Your task to perform on an android device: When is my next appointment? Image 0: 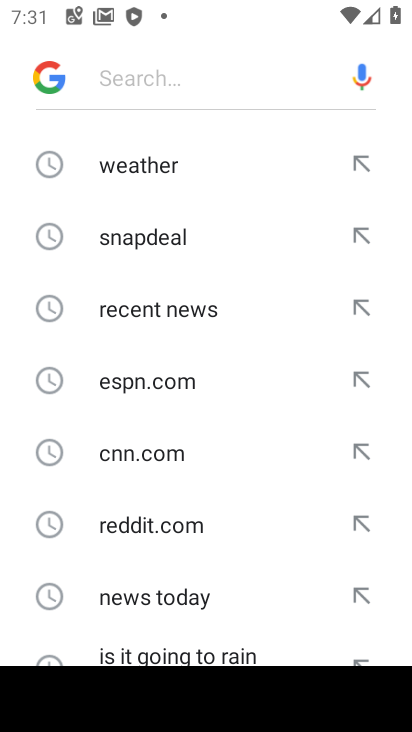
Step 0: press home button
Your task to perform on an android device: When is my next appointment? Image 1: 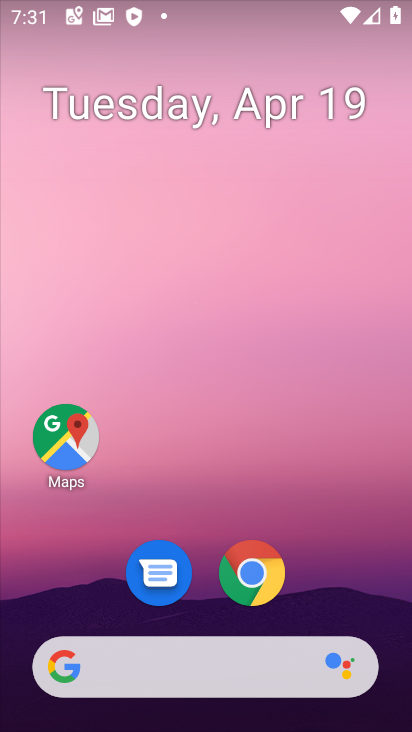
Step 1: drag from (379, 602) to (327, 91)
Your task to perform on an android device: When is my next appointment? Image 2: 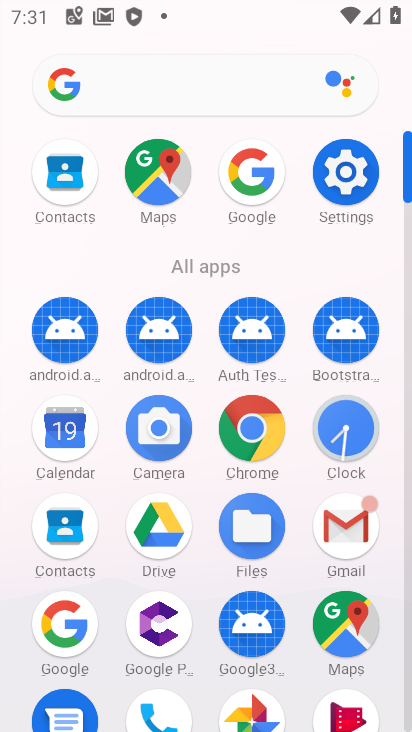
Step 2: click (60, 432)
Your task to perform on an android device: When is my next appointment? Image 3: 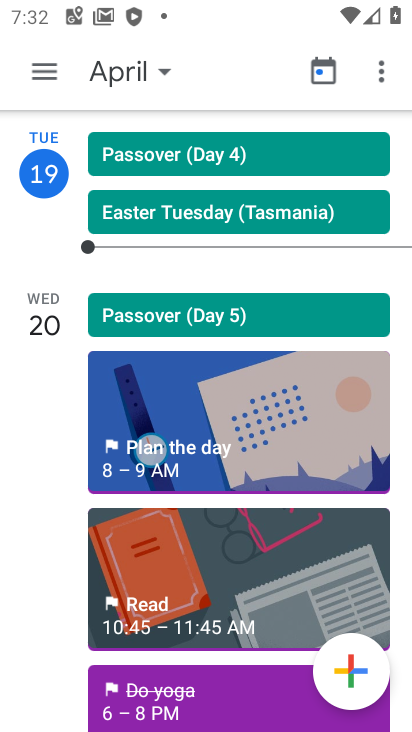
Step 3: click (155, 65)
Your task to perform on an android device: When is my next appointment? Image 4: 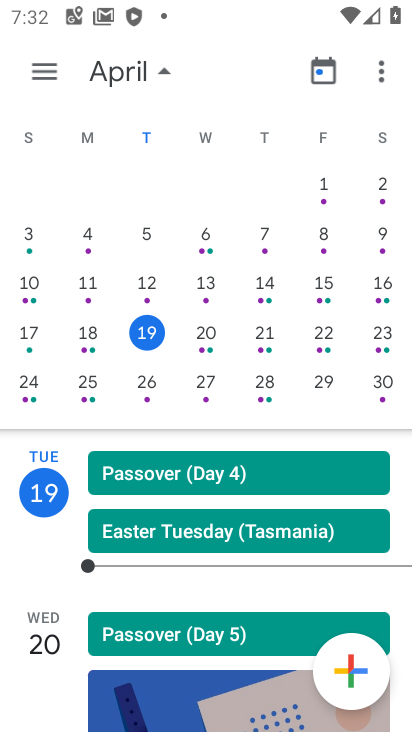
Step 4: click (55, 66)
Your task to perform on an android device: When is my next appointment? Image 5: 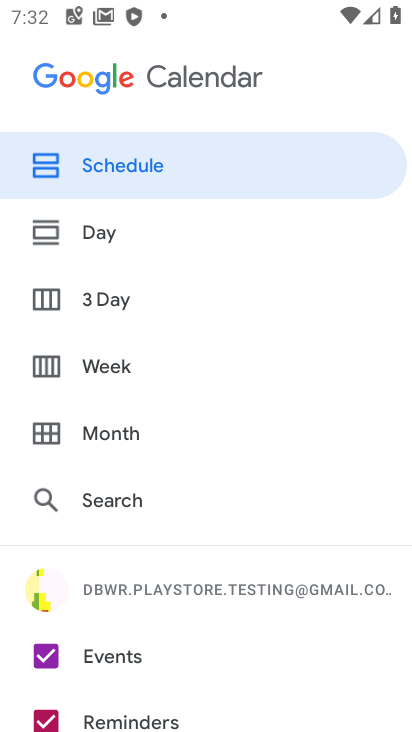
Step 5: drag from (295, 533) to (297, 208)
Your task to perform on an android device: When is my next appointment? Image 6: 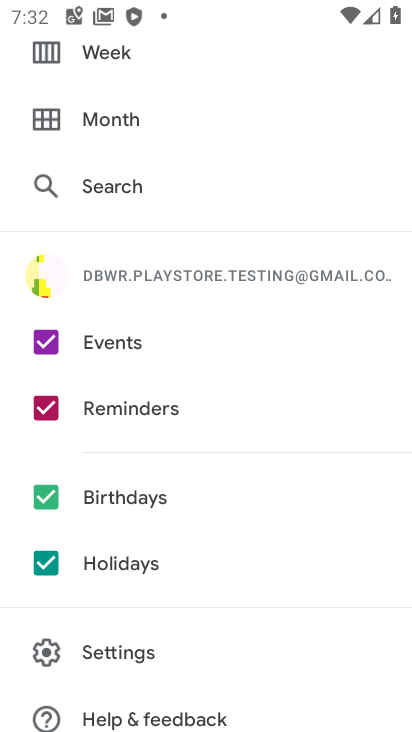
Step 6: drag from (318, 623) to (274, 197)
Your task to perform on an android device: When is my next appointment? Image 7: 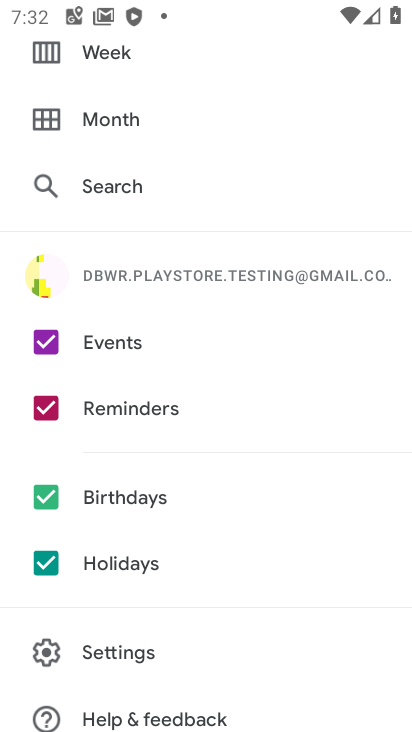
Step 7: click (34, 394)
Your task to perform on an android device: When is my next appointment? Image 8: 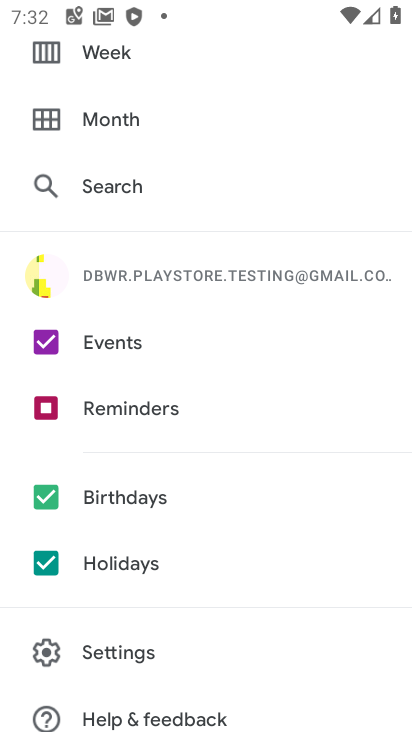
Step 8: click (54, 496)
Your task to perform on an android device: When is my next appointment? Image 9: 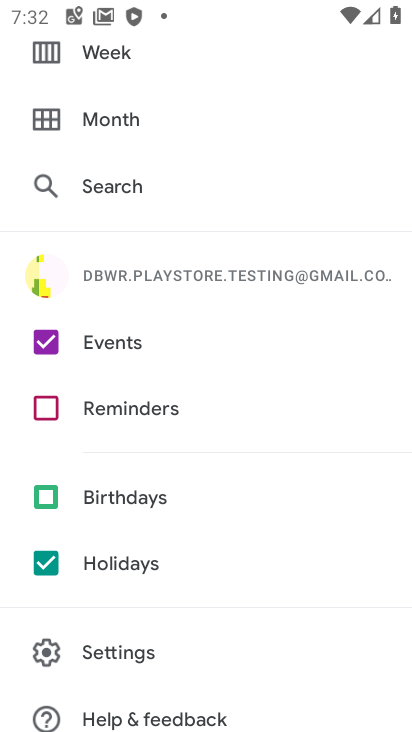
Step 9: click (48, 565)
Your task to perform on an android device: When is my next appointment? Image 10: 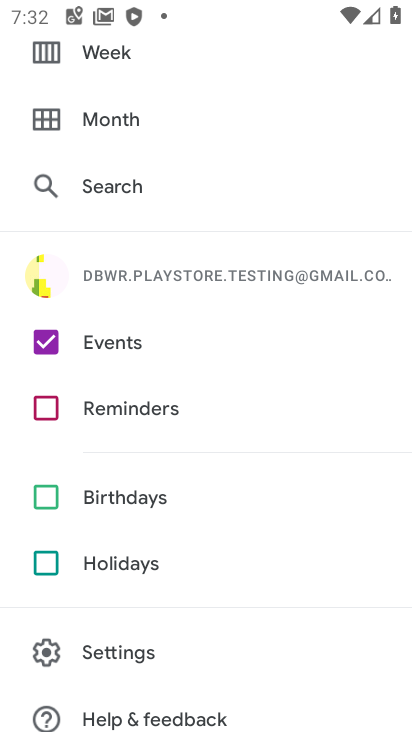
Step 10: drag from (246, 101) to (260, 471)
Your task to perform on an android device: When is my next appointment? Image 11: 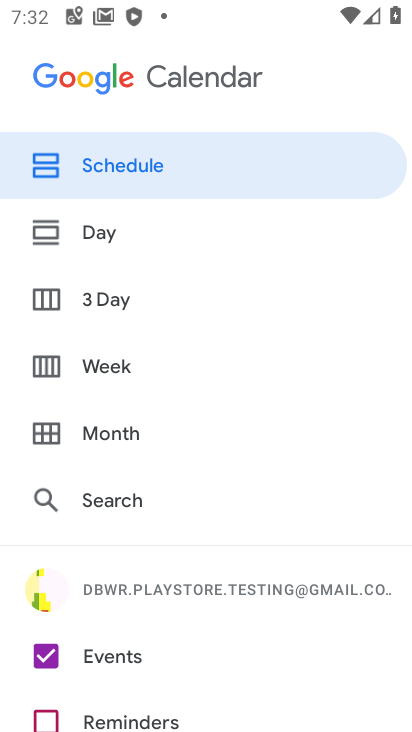
Step 11: click (90, 163)
Your task to perform on an android device: When is my next appointment? Image 12: 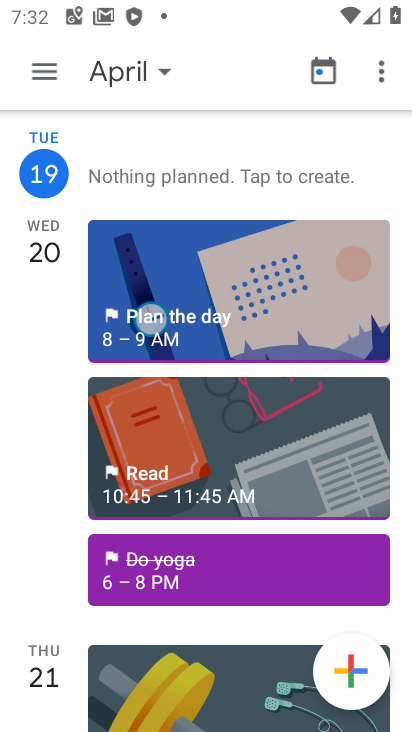
Step 12: drag from (122, 678) to (141, 246)
Your task to perform on an android device: When is my next appointment? Image 13: 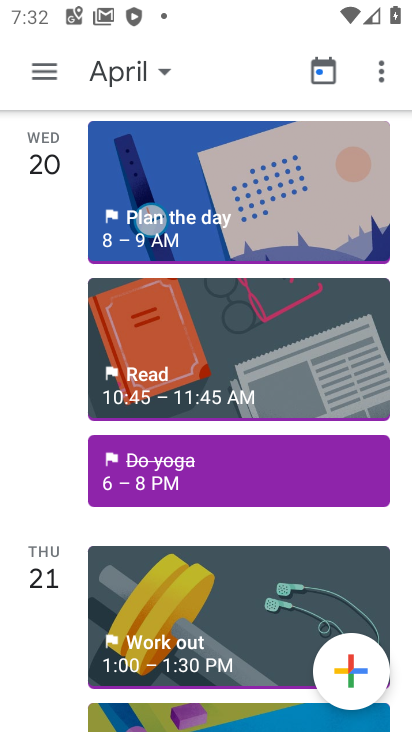
Step 13: drag from (158, 698) to (144, 296)
Your task to perform on an android device: When is my next appointment? Image 14: 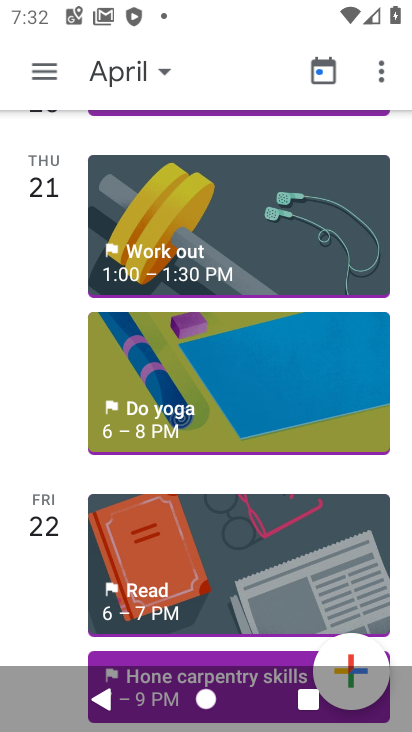
Step 14: click (144, 256)
Your task to perform on an android device: When is my next appointment? Image 15: 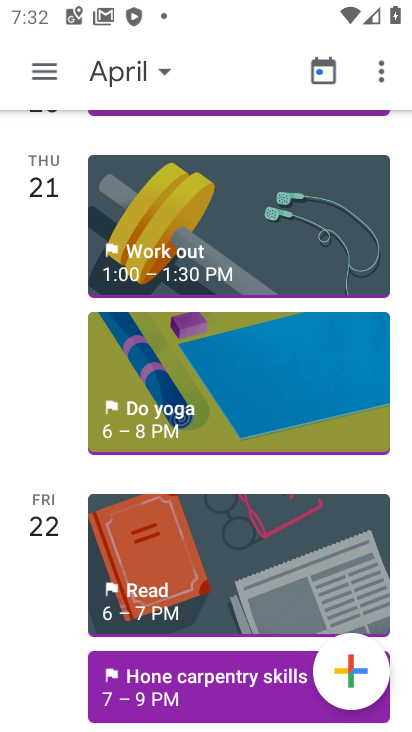
Step 15: task complete